Your task to perform on an android device: turn on wifi Image 0: 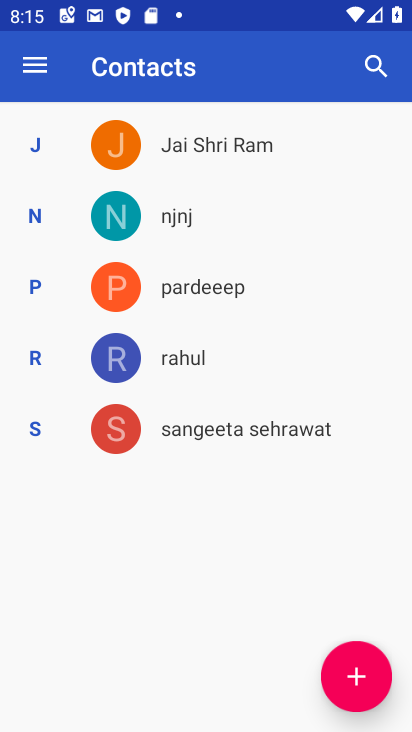
Step 0: press home button
Your task to perform on an android device: turn on wifi Image 1: 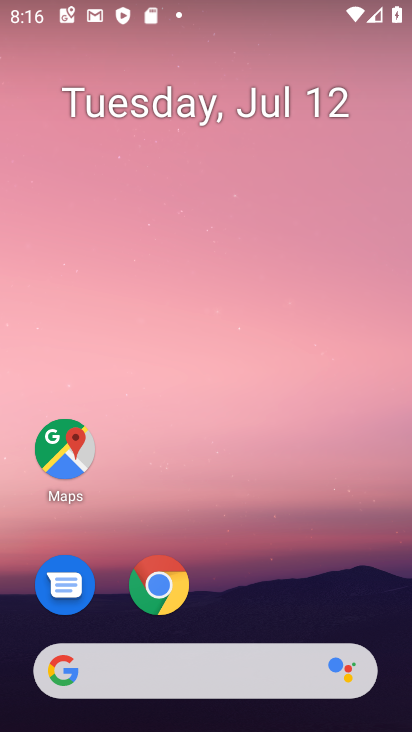
Step 1: drag from (240, 615) to (259, 70)
Your task to perform on an android device: turn on wifi Image 2: 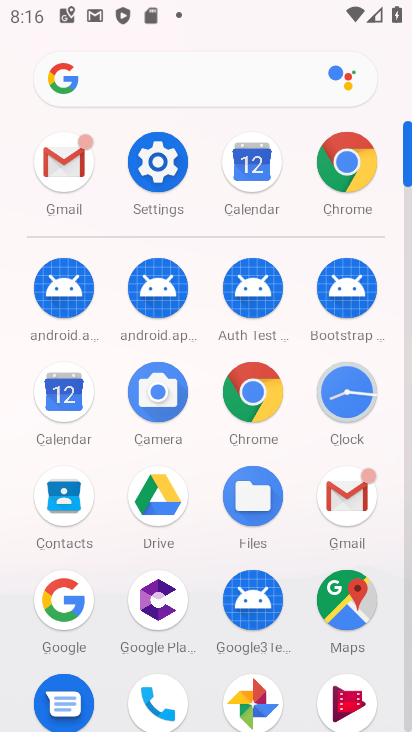
Step 2: click (171, 176)
Your task to perform on an android device: turn on wifi Image 3: 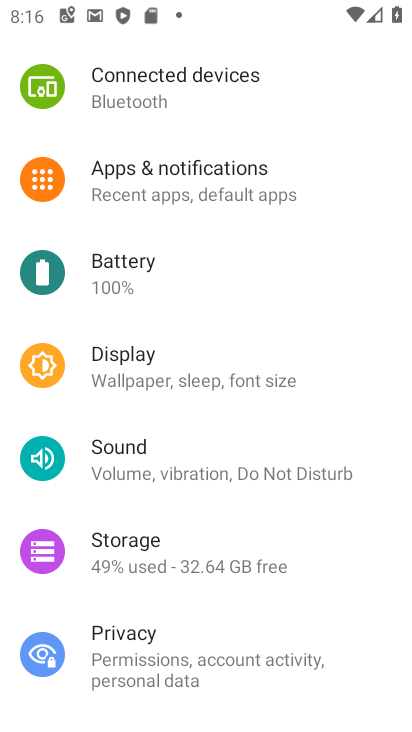
Step 3: drag from (187, 301) to (175, 622)
Your task to perform on an android device: turn on wifi Image 4: 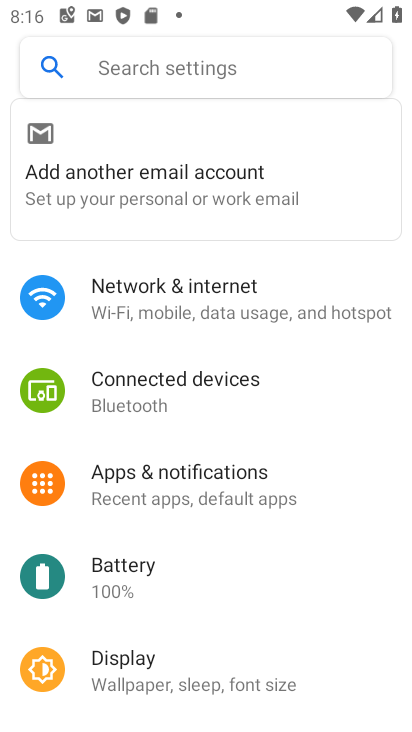
Step 4: click (241, 293)
Your task to perform on an android device: turn on wifi Image 5: 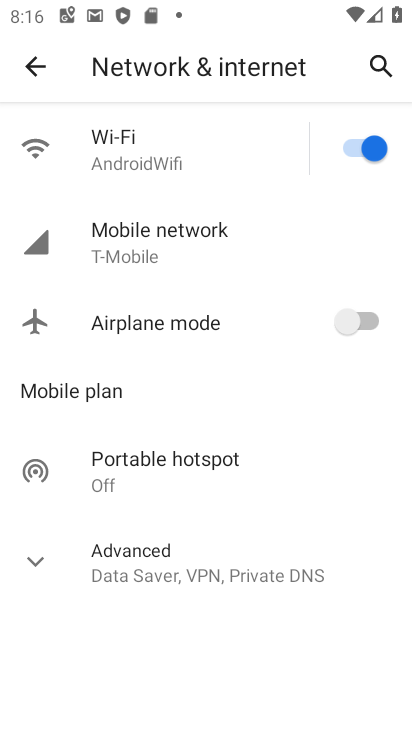
Step 5: task complete